Your task to perform on an android device: change the clock display to digital Image 0: 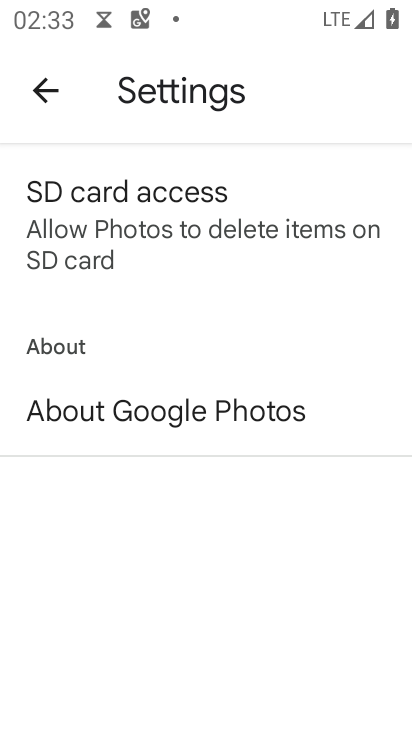
Step 0: press home button
Your task to perform on an android device: change the clock display to digital Image 1: 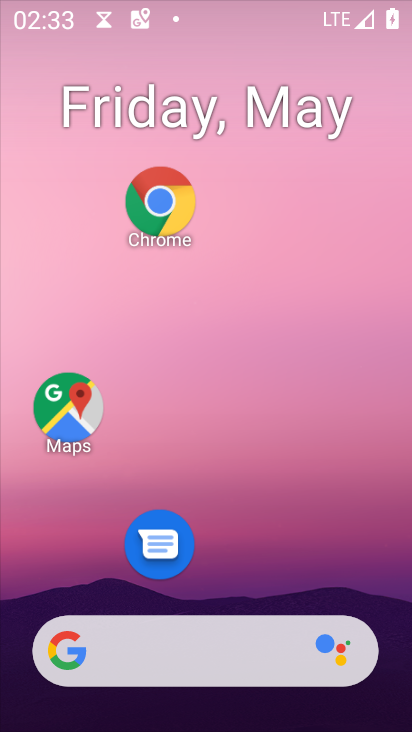
Step 1: drag from (276, 552) to (270, 235)
Your task to perform on an android device: change the clock display to digital Image 2: 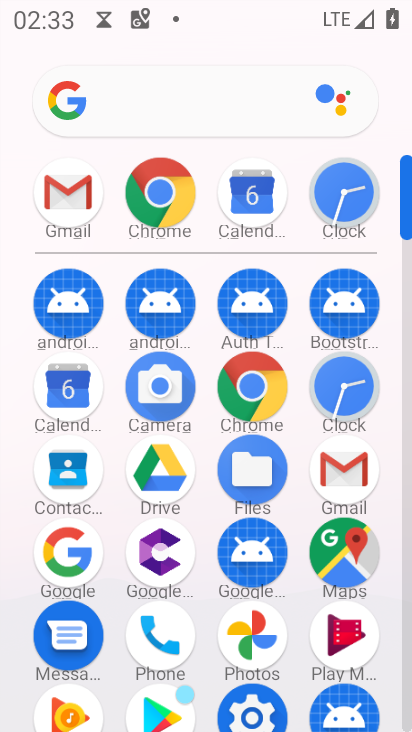
Step 2: click (358, 401)
Your task to perform on an android device: change the clock display to digital Image 3: 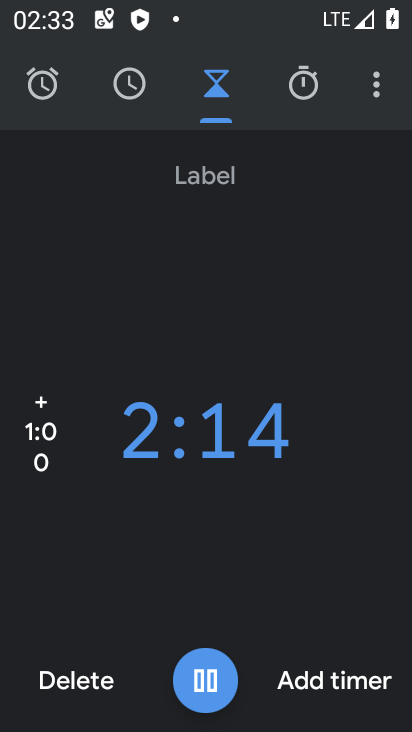
Step 3: click (373, 96)
Your task to perform on an android device: change the clock display to digital Image 4: 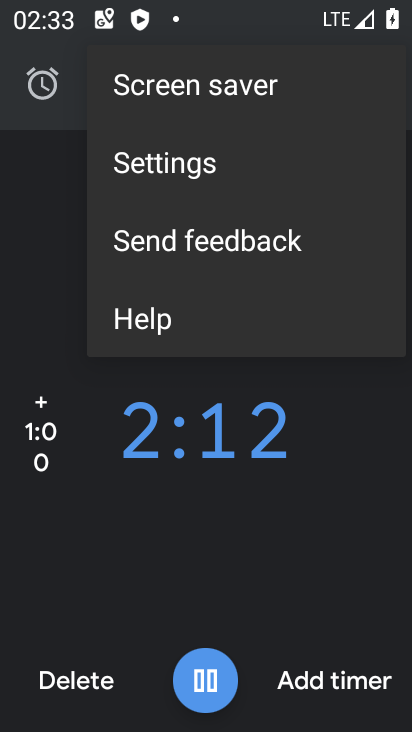
Step 4: click (253, 175)
Your task to perform on an android device: change the clock display to digital Image 5: 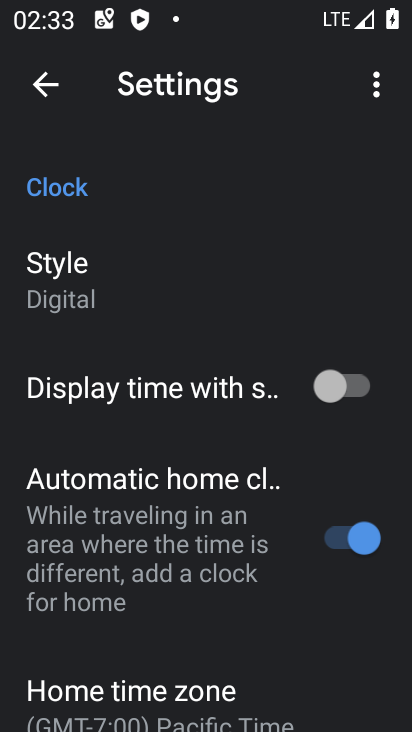
Step 5: task complete